Your task to perform on an android device: see tabs open on other devices in the chrome app Image 0: 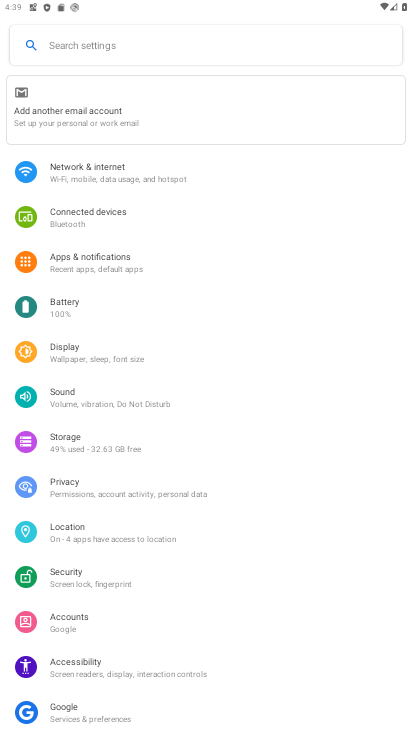
Step 0: press home button
Your task to perform on an android device: see tabs open on other devices in the chrome app Image 1: 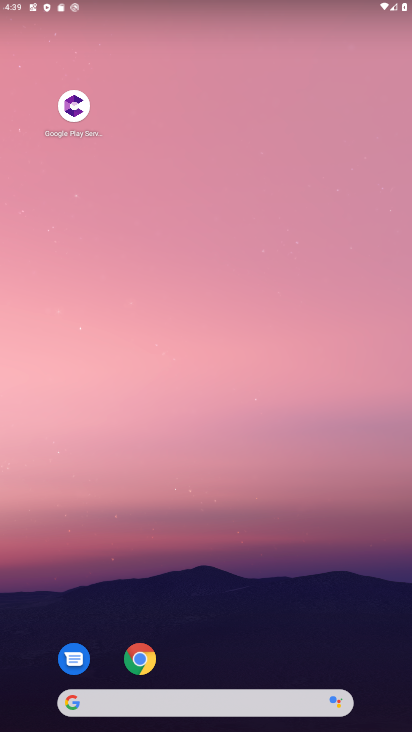
Step 1: drag from (240, 618) to (272, 0)
Your task to perform on an android device: see tabs open on other devices in the chrome app Image 2: 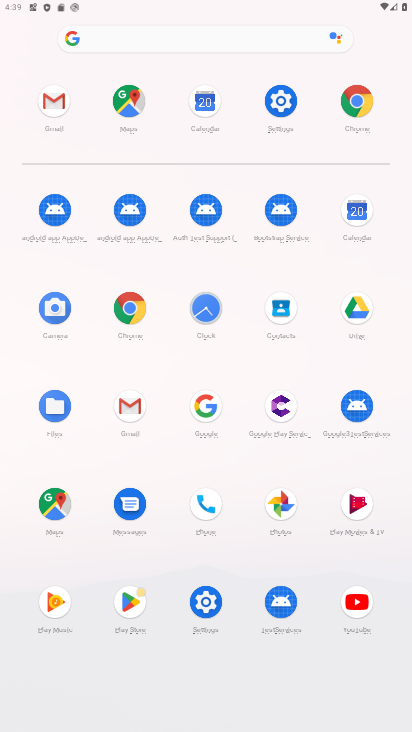
Step 2: click (132, 304)
Your task to perform on an android device: see tabs open on other devices in the chrome app Image 3: 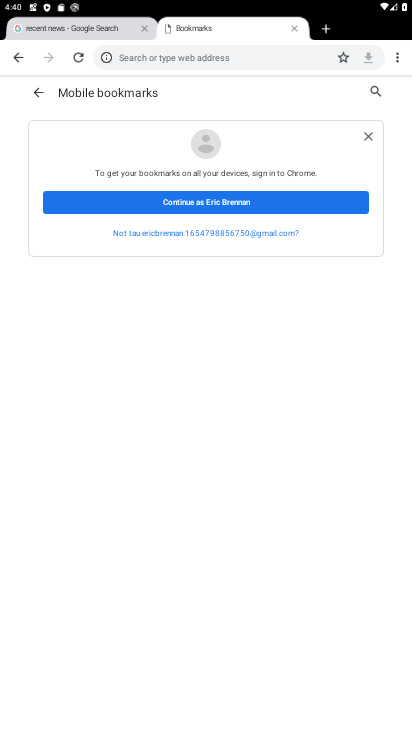
Step 3: task complete